Your task to perform on an android device: turn off notifications settings in the gmail app Image 0: 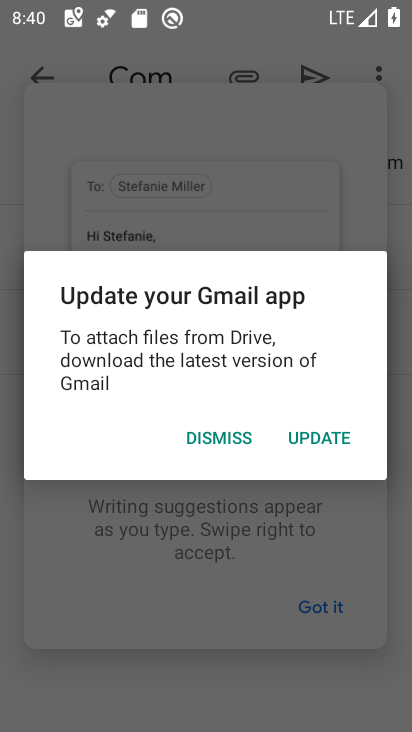
Step 0: press home button
Your task to perform on an android device: turn off notifications settings in the gmail app Image 1: 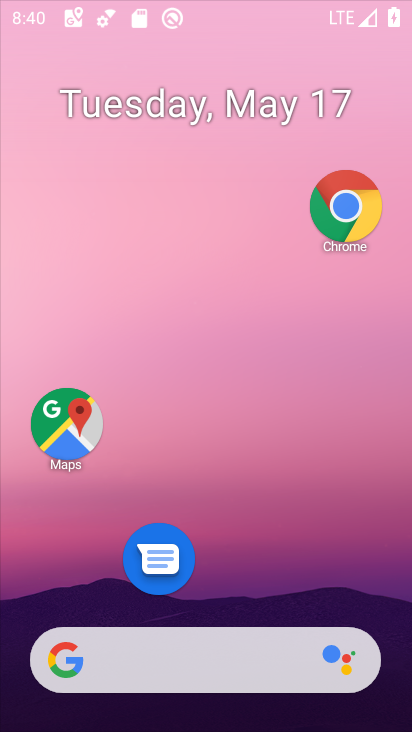
Step 1: drag from (234, 692) to (220, 298)
Your task to perform on an android device: turn off notifications settings in the gmail app Image 2: 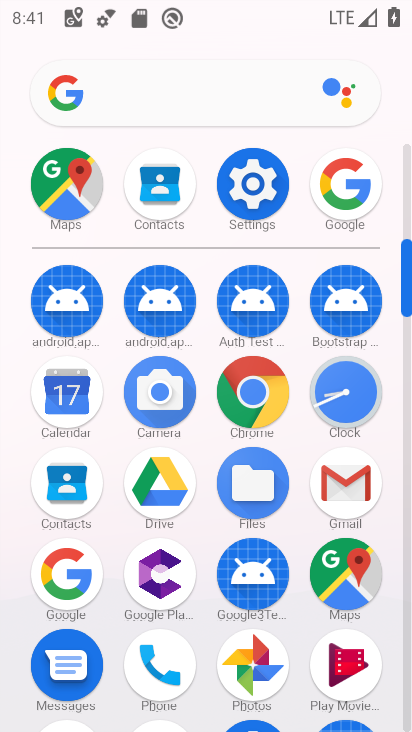
Step 2: click (359, 479)
Your task to perform on an android device: turn off notifications settings in the gmail app Image 3: 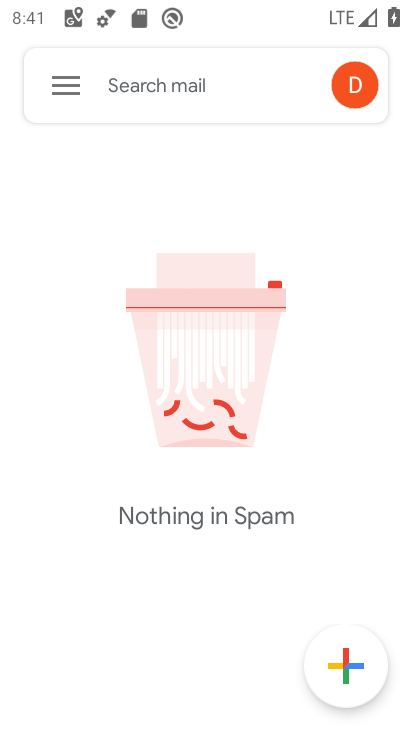
Step 3: click (63, 96)
Your task to perform on an android device: turn off notifications settings in the gmail app Image 4: 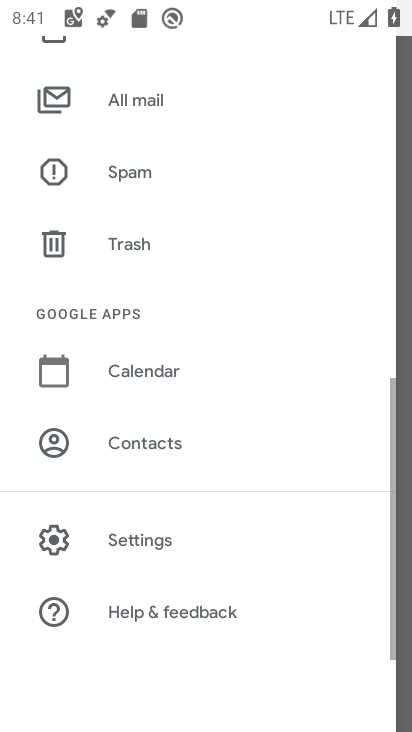
Step 4: click (132, 540)
Your task to perform on an android device: turn off notifications settings in the gmail app Image 5: 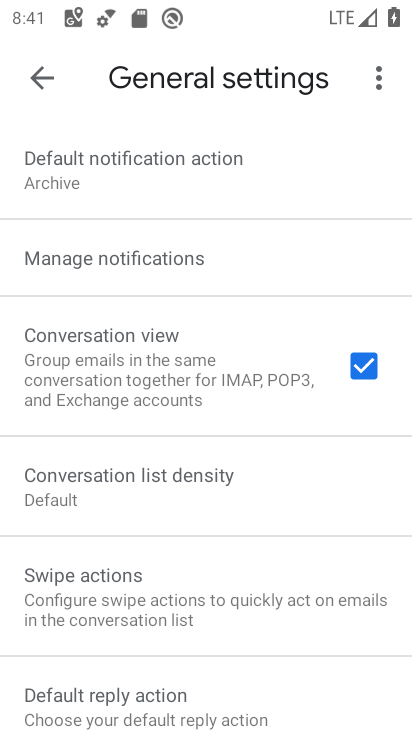
Step 5: click (213, 263)
Your task to perform on an android device: turn off notifications settings in the gmail app Image 6: 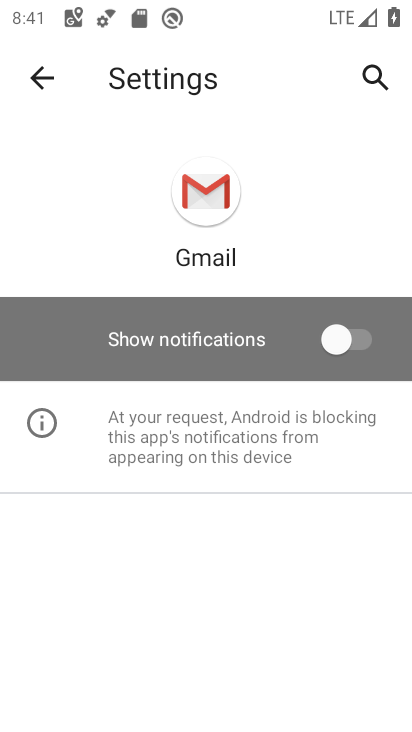
Step 6: task complete